Your task to perform on an android device: visit the assistant section in the google photos Image 0: 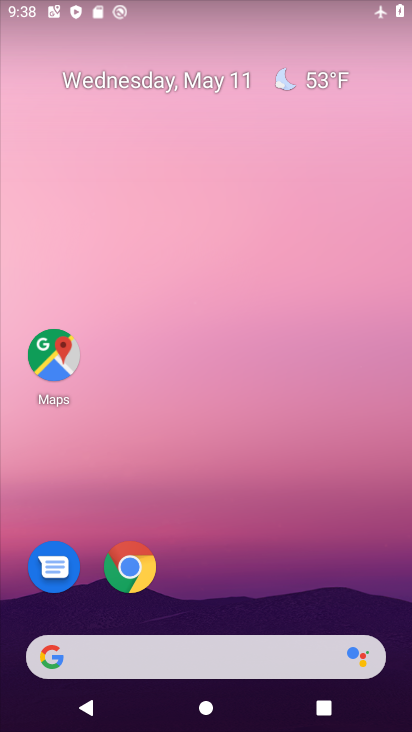
Step 0: drag from (264, 707) to (310, 25)
Your task to perform on an android device: visit the assistant section in the google photos Image 1: 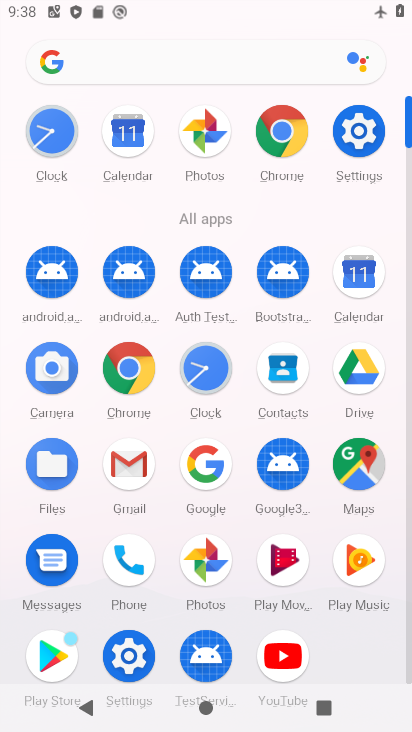
Step 1: click (218, 555)
Your task to perform on an android device: visit the assistant section in the google photos Image 2: 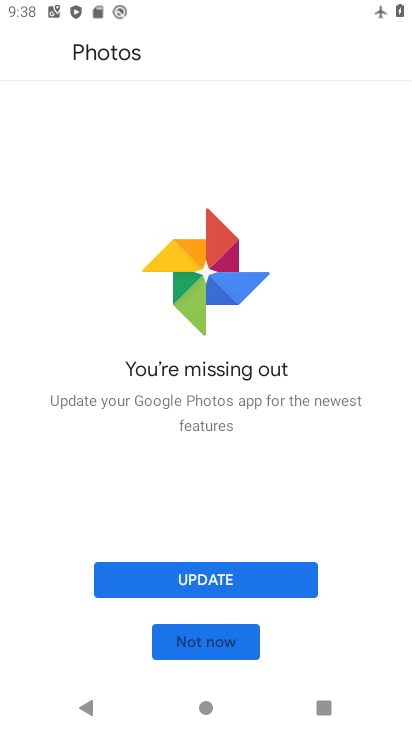
Step 2: click (191, 582)
Your task to perform on an android device: visit the assistant section in the google photos Image 3: 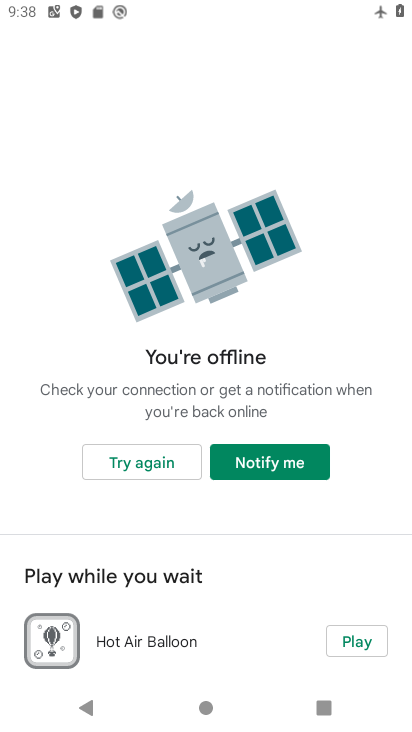
Step 3: click (150, 454)
Your task to perform on an android device: visit the assistant section in the google photos Image 4: 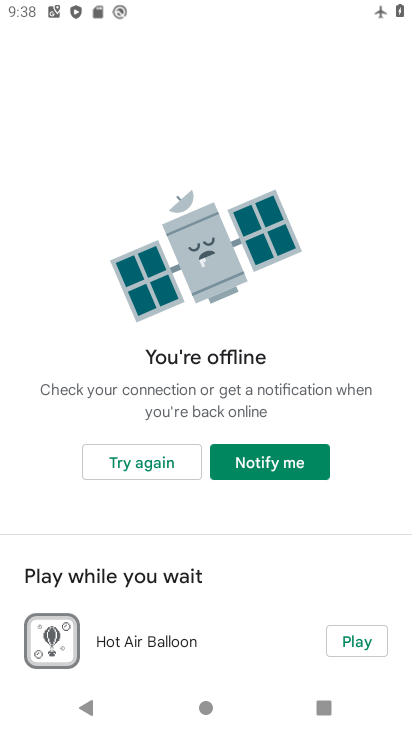
Step 4: task complete